Your task to perform on an android device: Open sound settings Image 0: 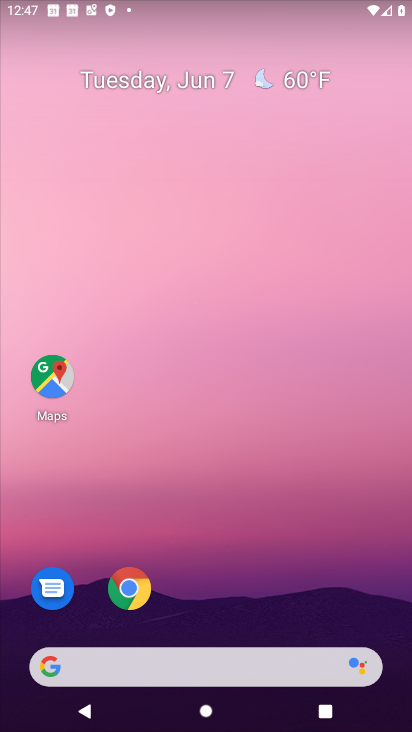
Step 0: drag from (272, 718) to (379, 7)
Your task to perform on an android device: Open sound settings Image 1: 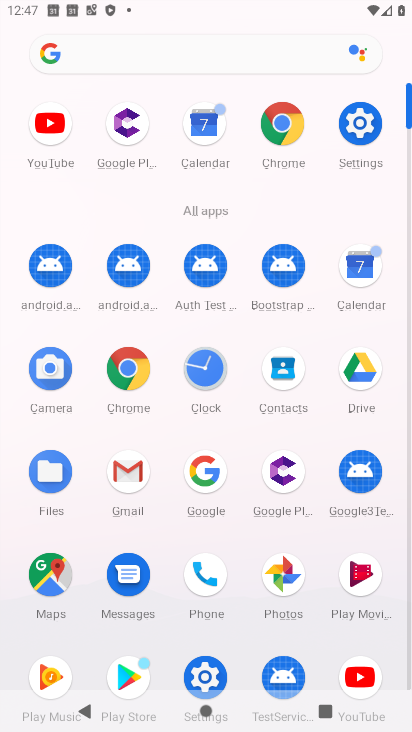
Step 1: click (360, 139)
Your task to perform on an android device: Open sound settings Image 2: 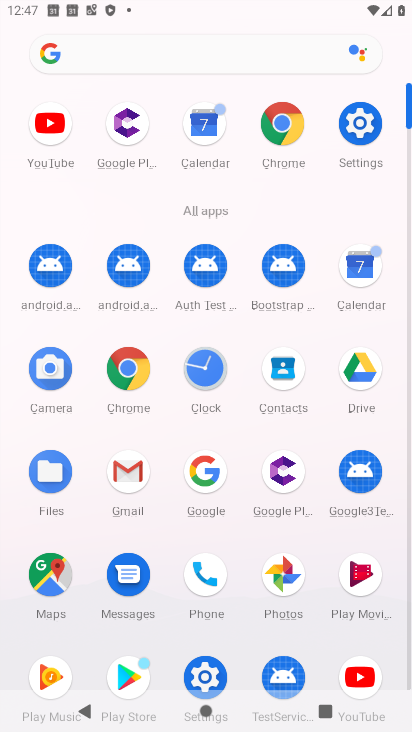
Step 2: click (360, 139)
Your task to perform on an android device: Open sound settings Image 3: 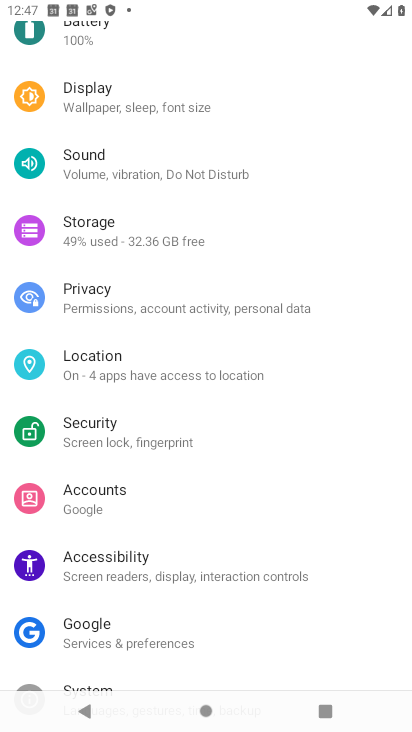
Step 3: click (193, 170)
Your task to perform on an android device: Open sound settings Image 4: 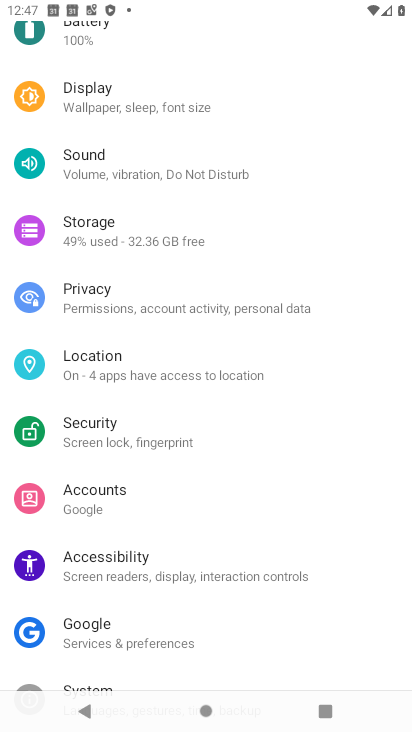
Step 4: click (193, 170)
Your task to perform on an android device: Open sound settings Image 5: 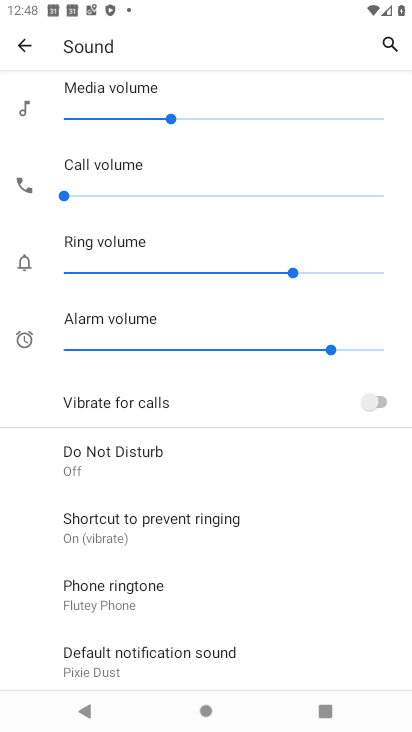
Step 5: task complete